Your task to perform on an android device: open wifi settings Image 0: 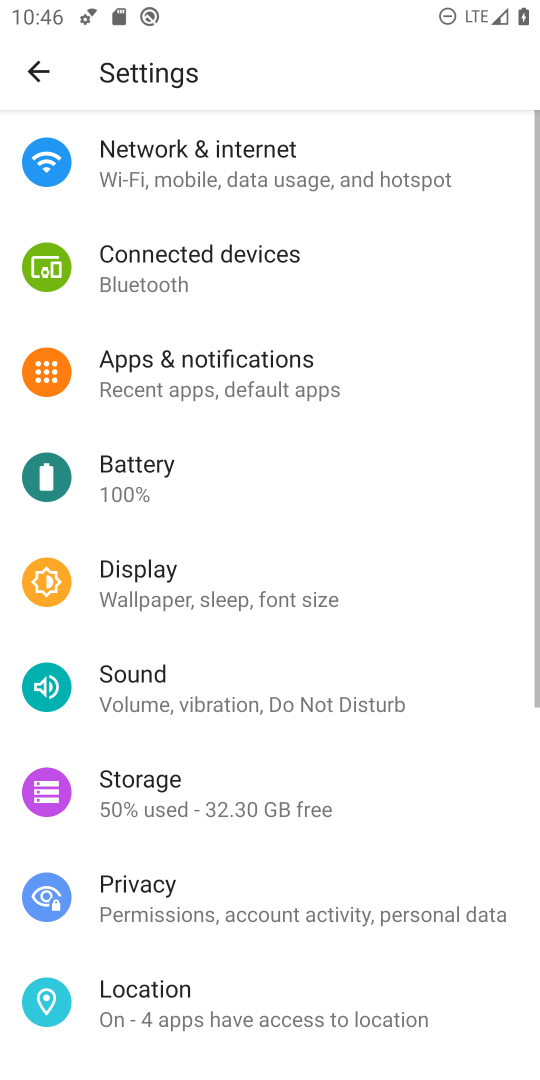
Step 0: press home button
Your task to perform on an android device: open wifi settings Image 1: 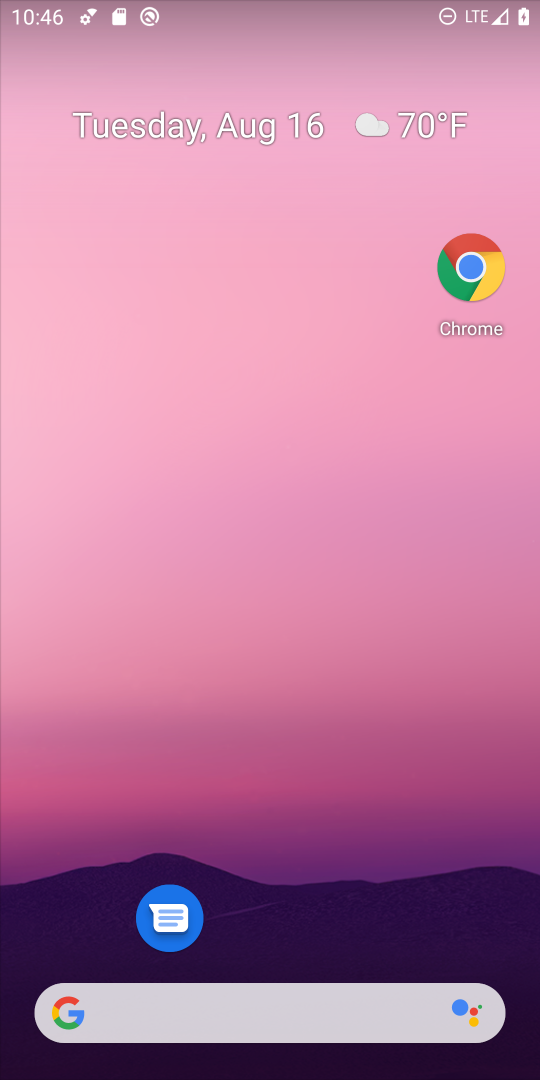
Step 1: drag from (306, 935) to (170, 99)
Your task to perform on an android device: open wifi settings Image 2: 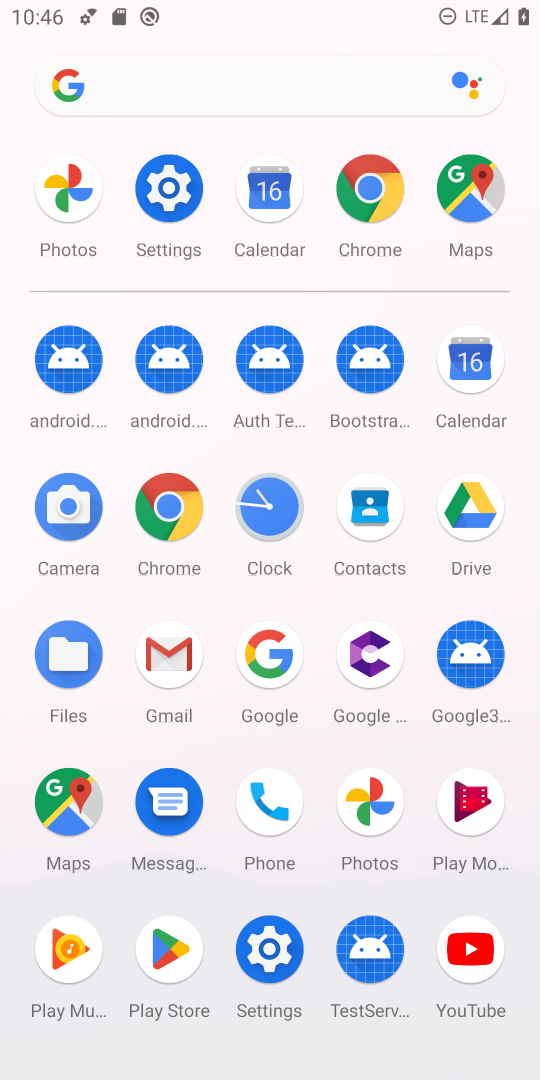
Step 2: click (163, 218)
Your task to perform on an android device: open wifi settings Image 3: 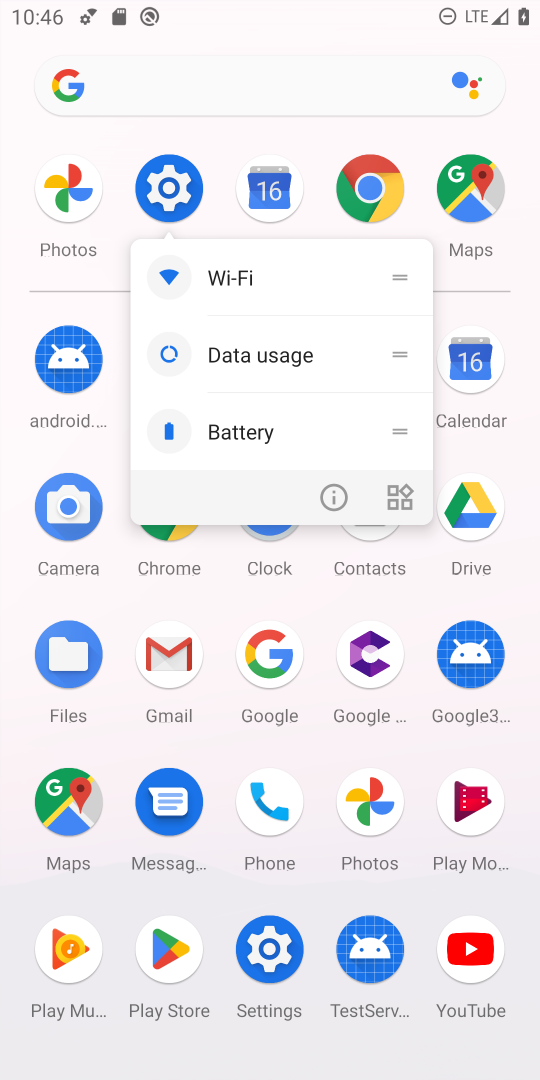
Step 3: click (164, 205)
Your task to perform on an android device: open wifi settings Image 4: 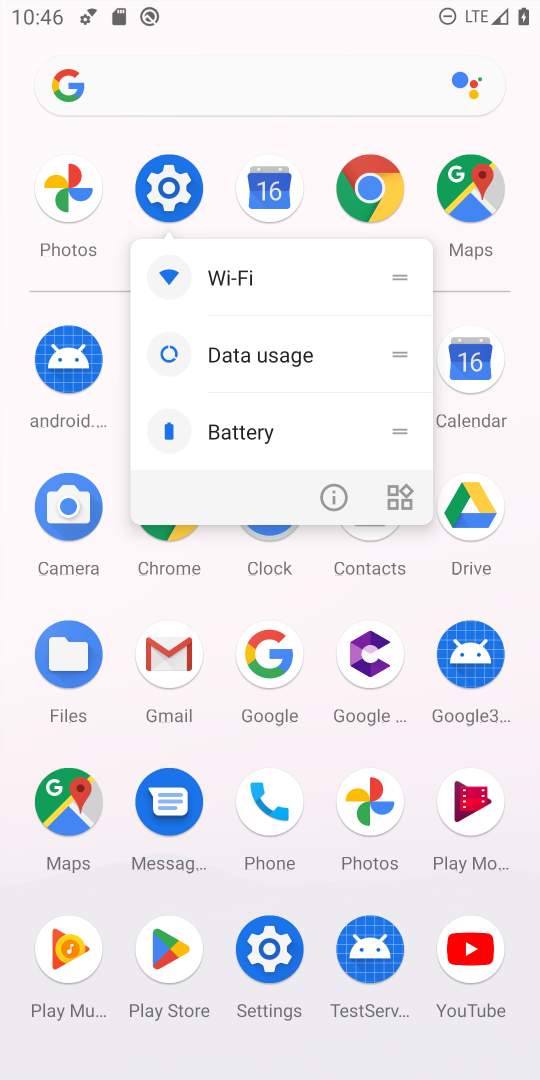
Step 4: click (167, 204)
Your task to perform on an android device: open wifi settings Image 5: 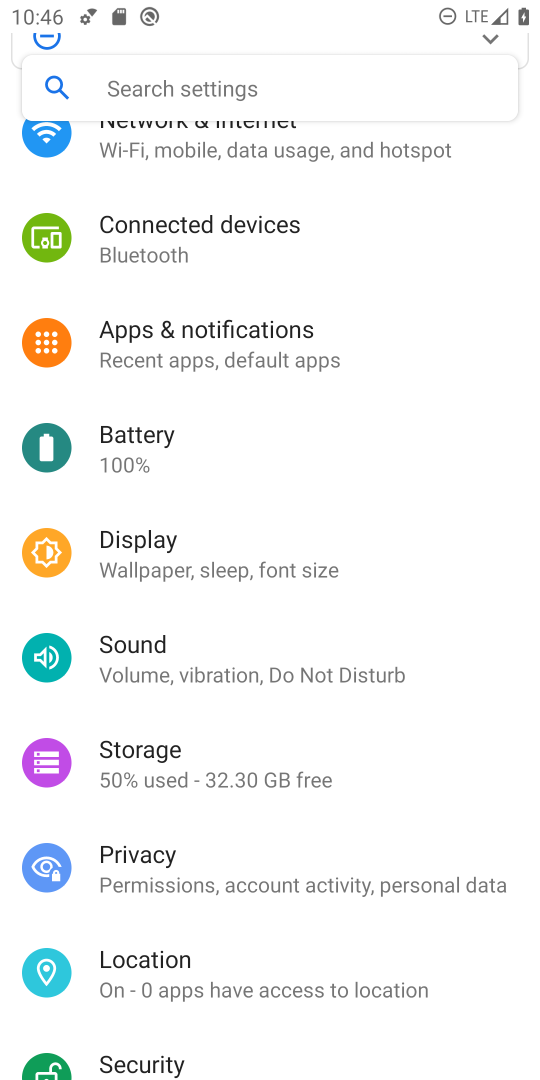
Step 5: drag from (187, 398) to (230, 941)
Your task to perform on an android device: open wifi settings Image 6: 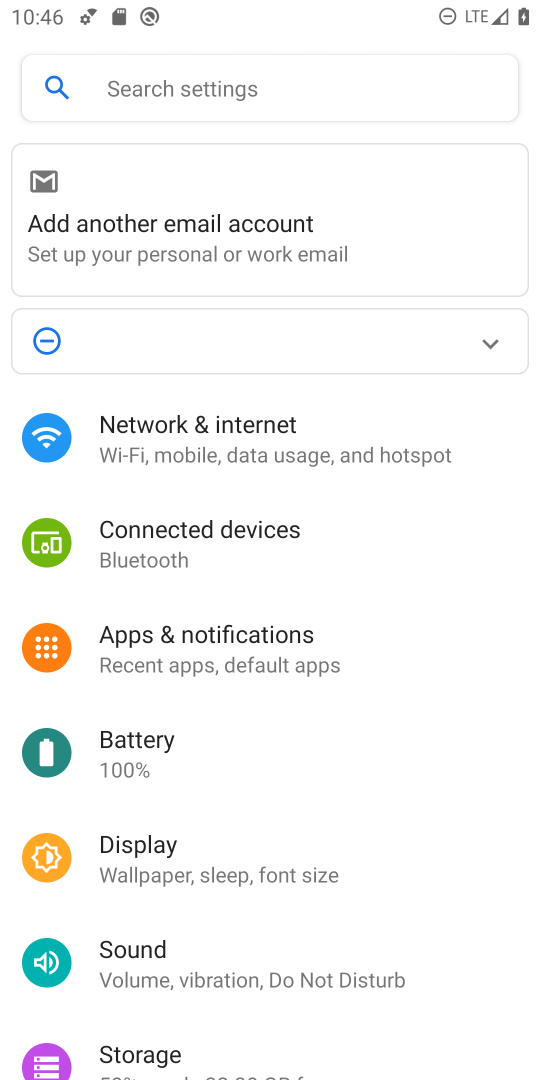
Step 6: click (310, 450)
Your task to perform on an android device: open wifi settings Image 7: 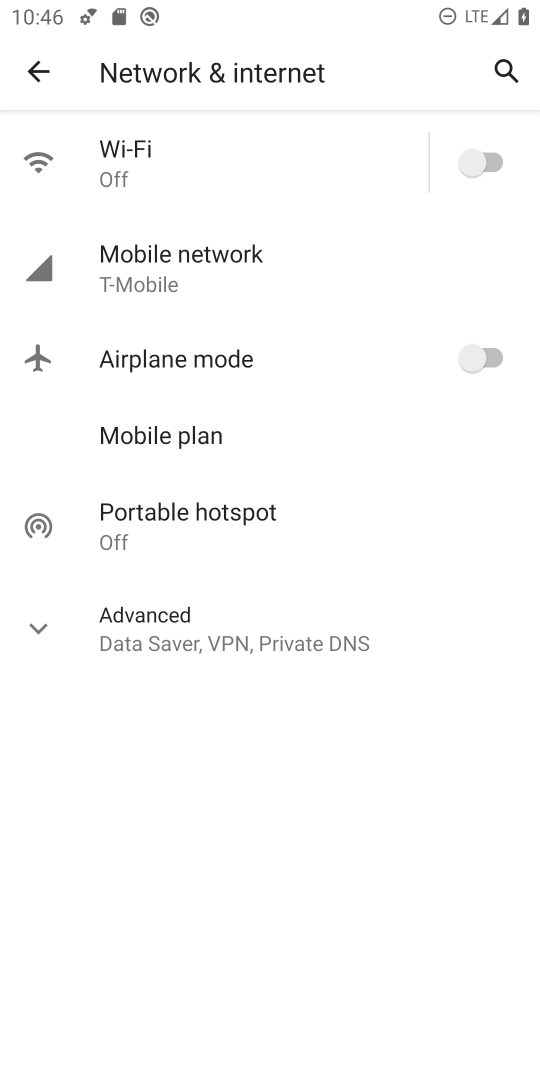
Step 7: click (180, 171)
Your task to perform on an android device: open wifi settings Image 8: 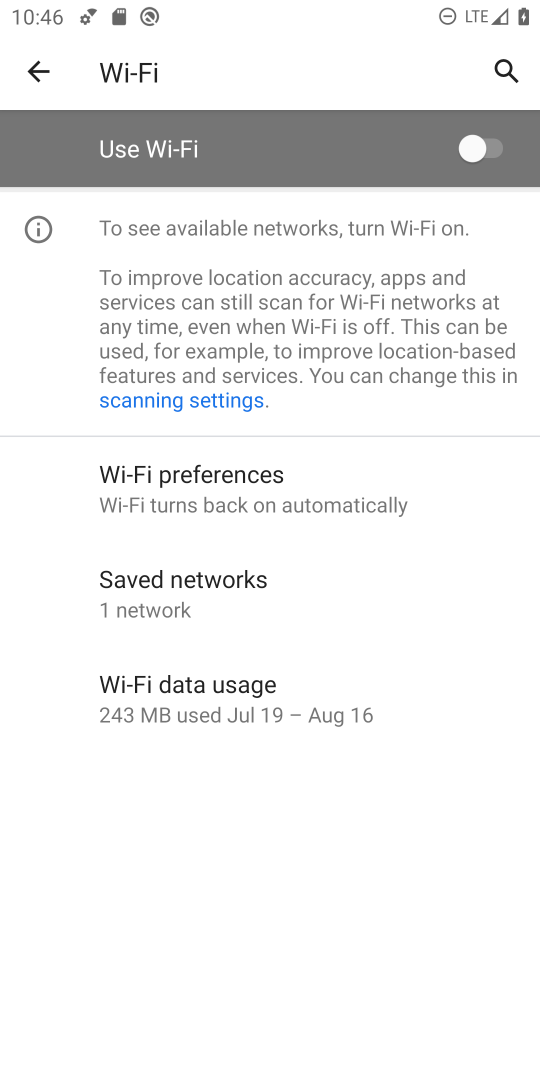
Step 8: task complete